Your task to perform on an android device: open chrome and create a bookmark for the current page Image 0: 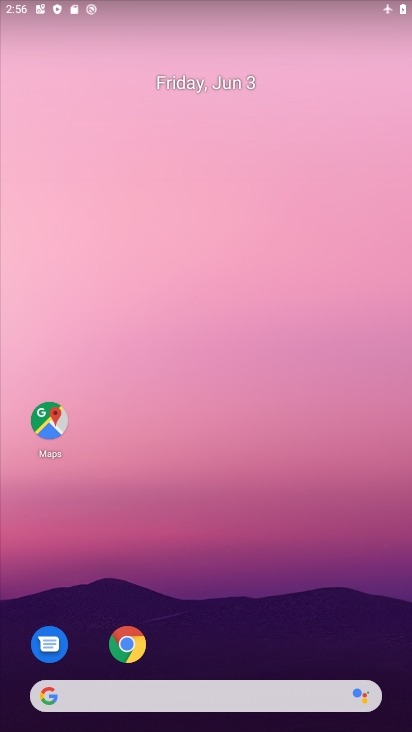
Step 0: click (125, 639)
Your task to perform on an android device: open chrome and create a bookmark for the current page Image 1: 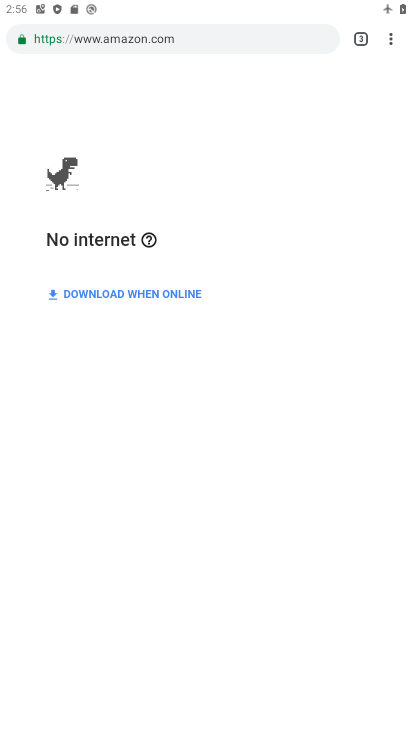
Step 1: click (390, 40)
Your task to perform on an android device: open chrome and create a bookmark for the current page Image 2: 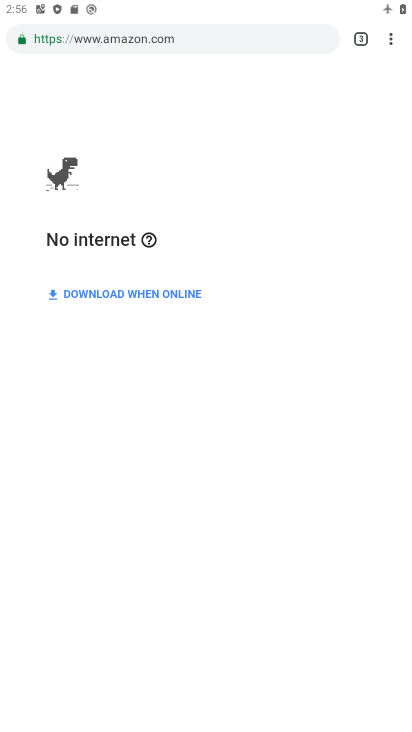
Step 2: click (390, 40)
Your task to perform on an android device: open chrome and create a bookmark for the current page Image 3: 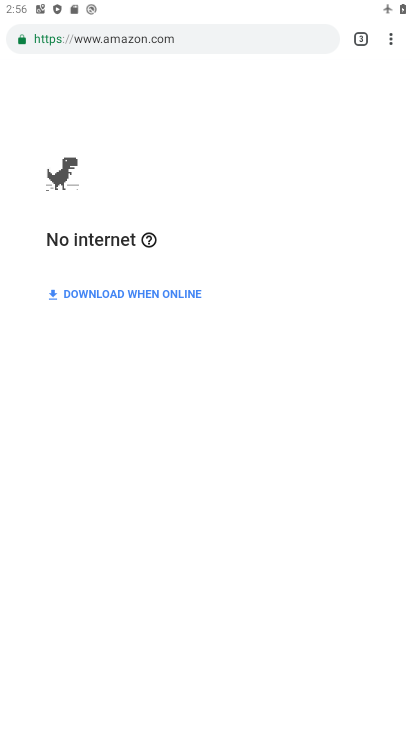
Step 3: task complete